Your task to perform on an android device: open device folders in google photos Image 0: 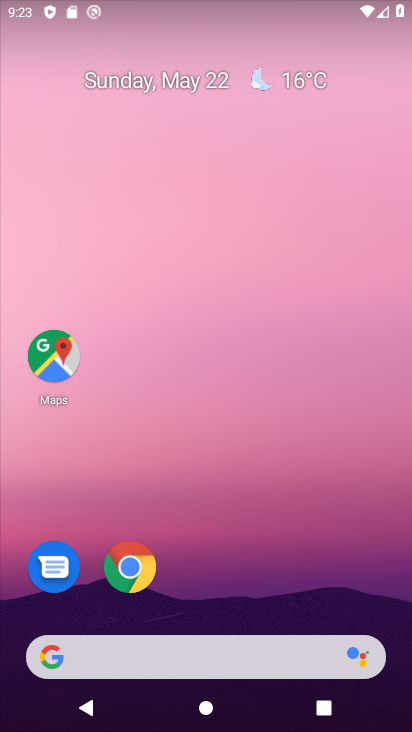
Step 0: drag from (190, 632) to (150, 18)
Your task to perform on an android device: open device folders in google photos Image 1: 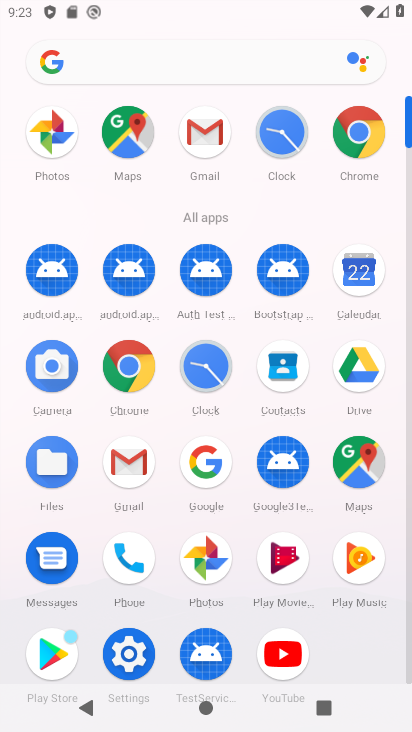
Step 1: click (198, 552)
Your task to perform on an android device: open device folders in google photos Image 2: 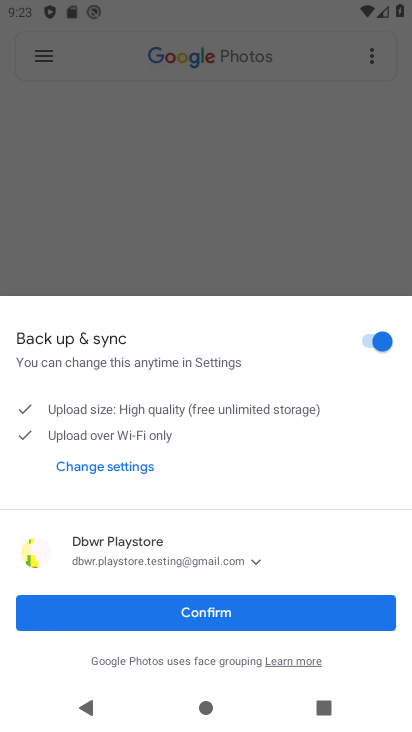
Step 2: click (202, 597)
Your task to perform on an android device: open device folders in google photos Image 3: 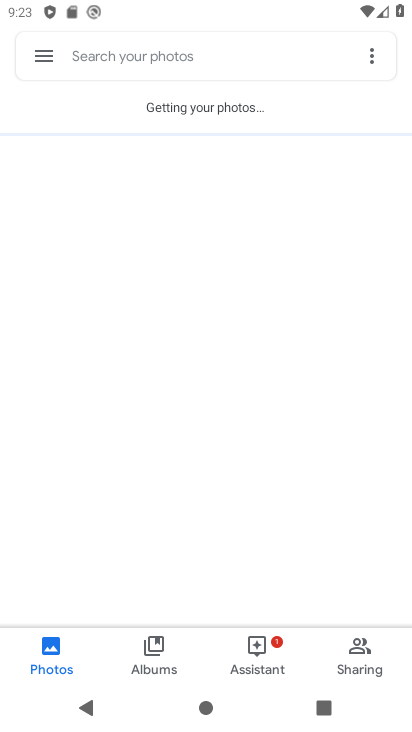
Step 3: click (36, 60)
Your task to perform on an android device: open device folders in google photos Image 4: 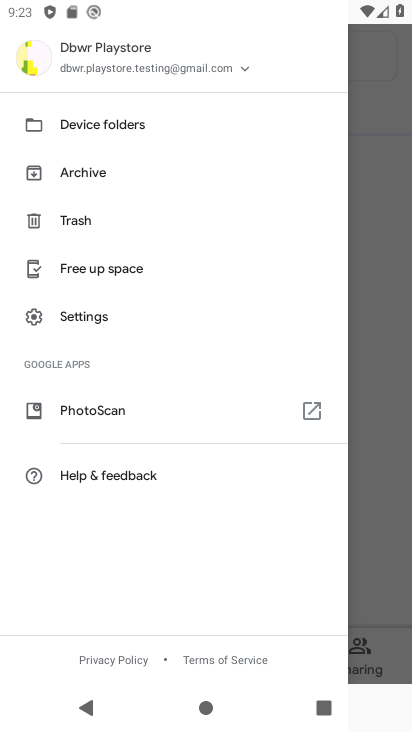
Step 4: click (84, 126)
Your task to perform on an android device: open device folders in google photos Image 5: 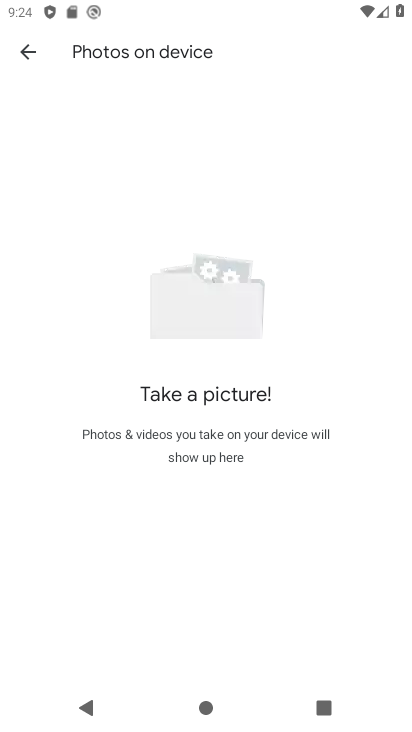
Step 5: task complete